Your task to perform on an android device: Search for duracell triple a on newegg, select the first entry, and add it to the cart. Image 0: 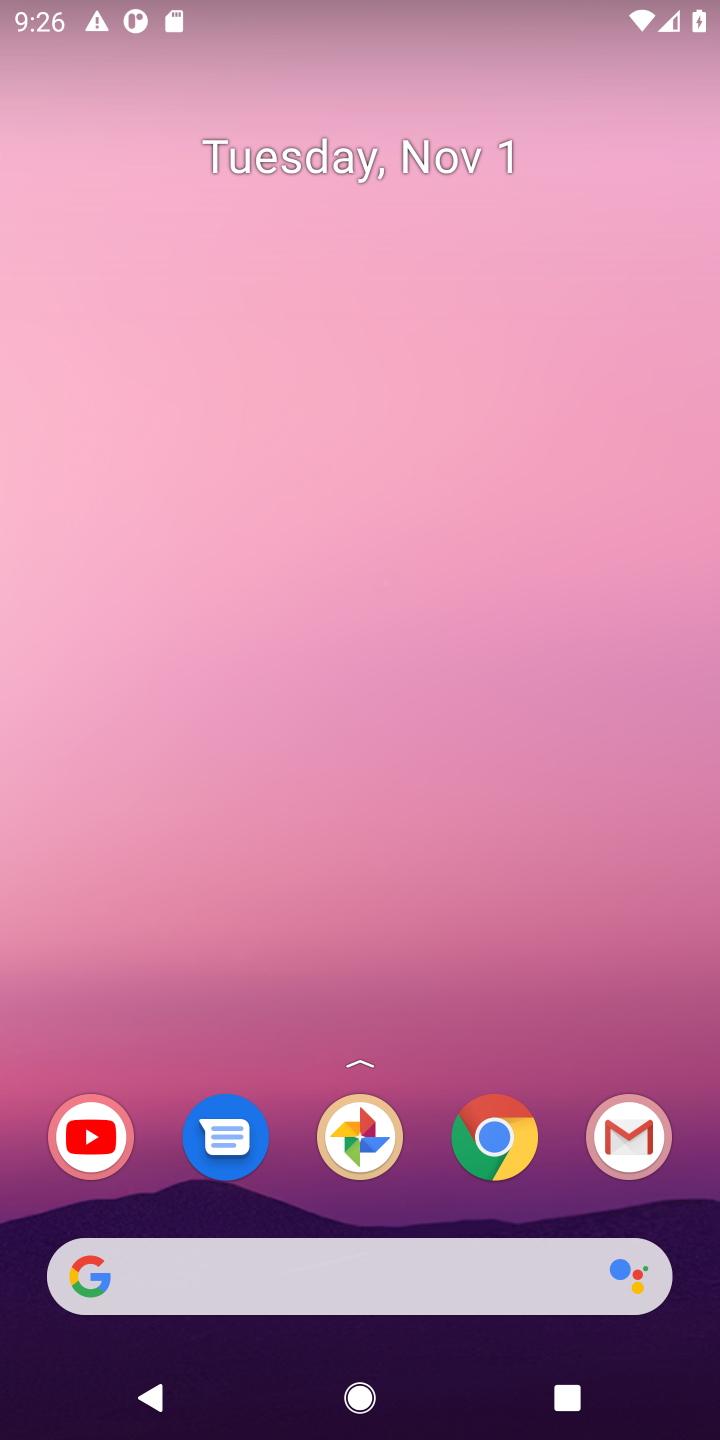
Step 0: click (354, 1289)
Your task to perform on an android device: Search for duracell triple a on newegg, select the first entry, and add it to the cart. Image 1: 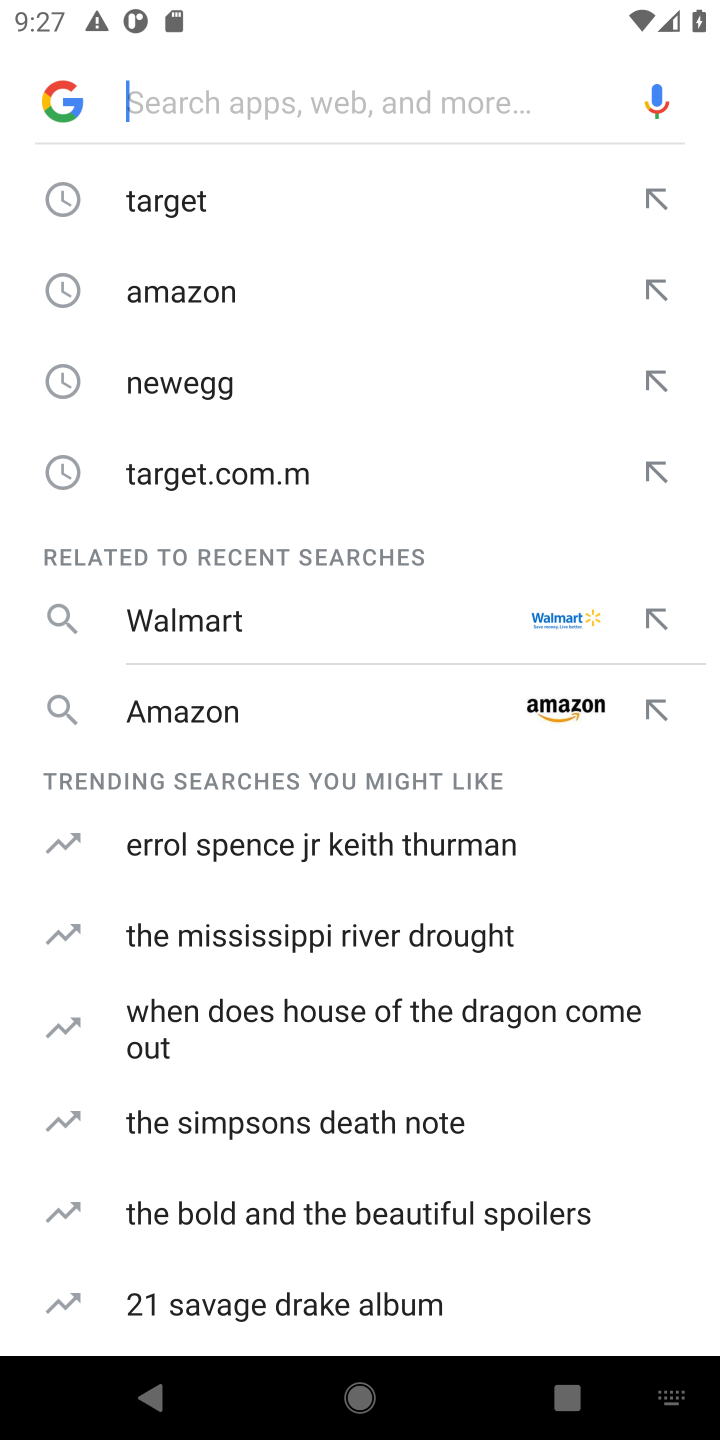
Step 1: type "newegg"
Your task to perform on an android device: Search for duracell triple a on newegg, select the first entry, and add it to the cart. Image 2: 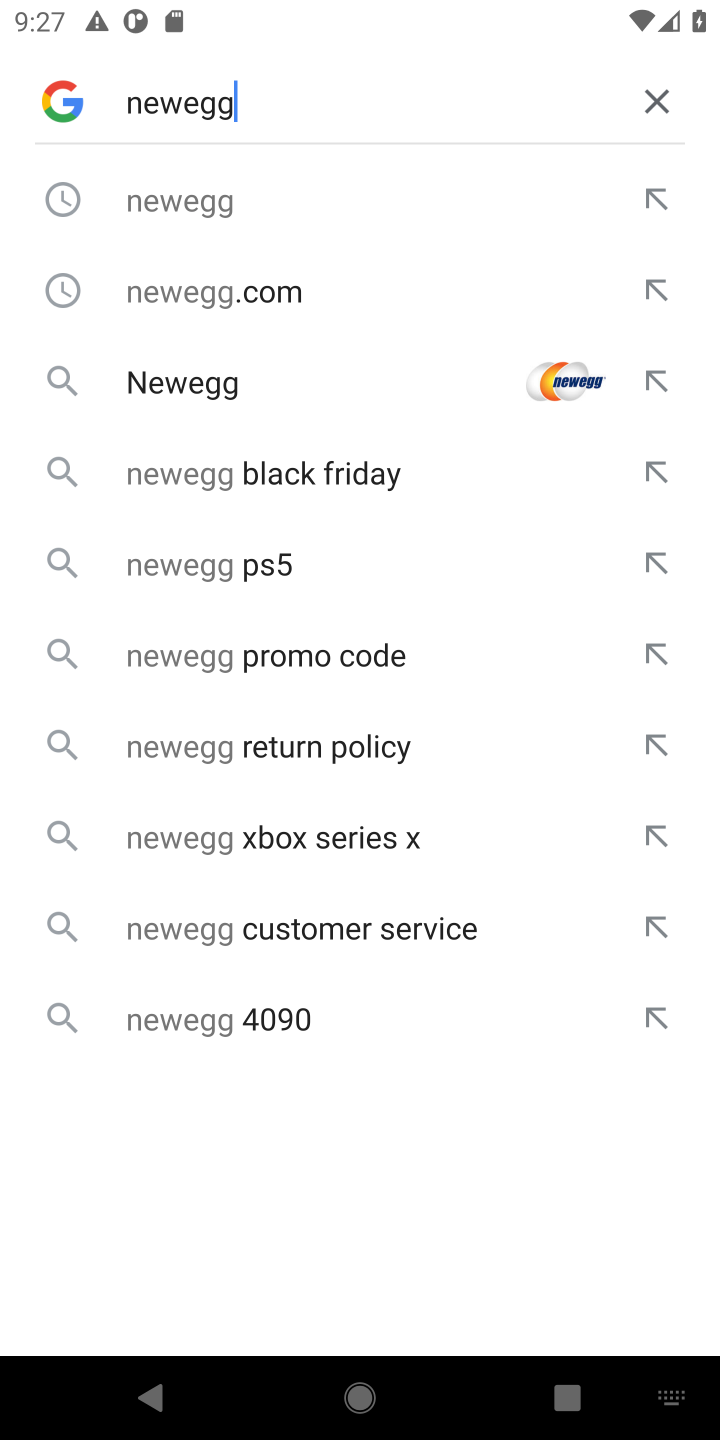
Step 2: click (320, 405)
Your task to perform on an android device: Search for duracell triple a on newegg, select the first entry, and add it to the cart. Image 3: 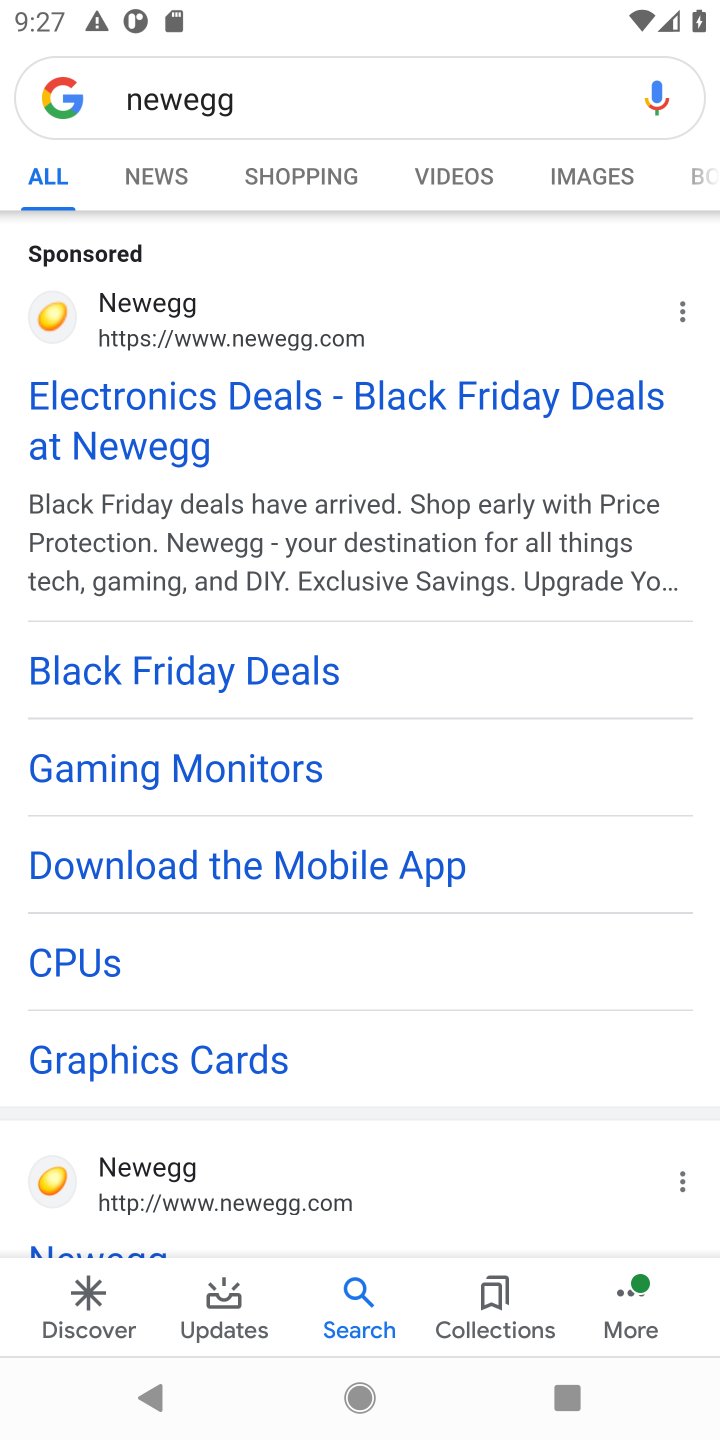
Step 3: click (146, 292)
Your task to perform on an android device: Search for duracell triple a on newegg, select the first entry, and add it to the cart. Image 4: 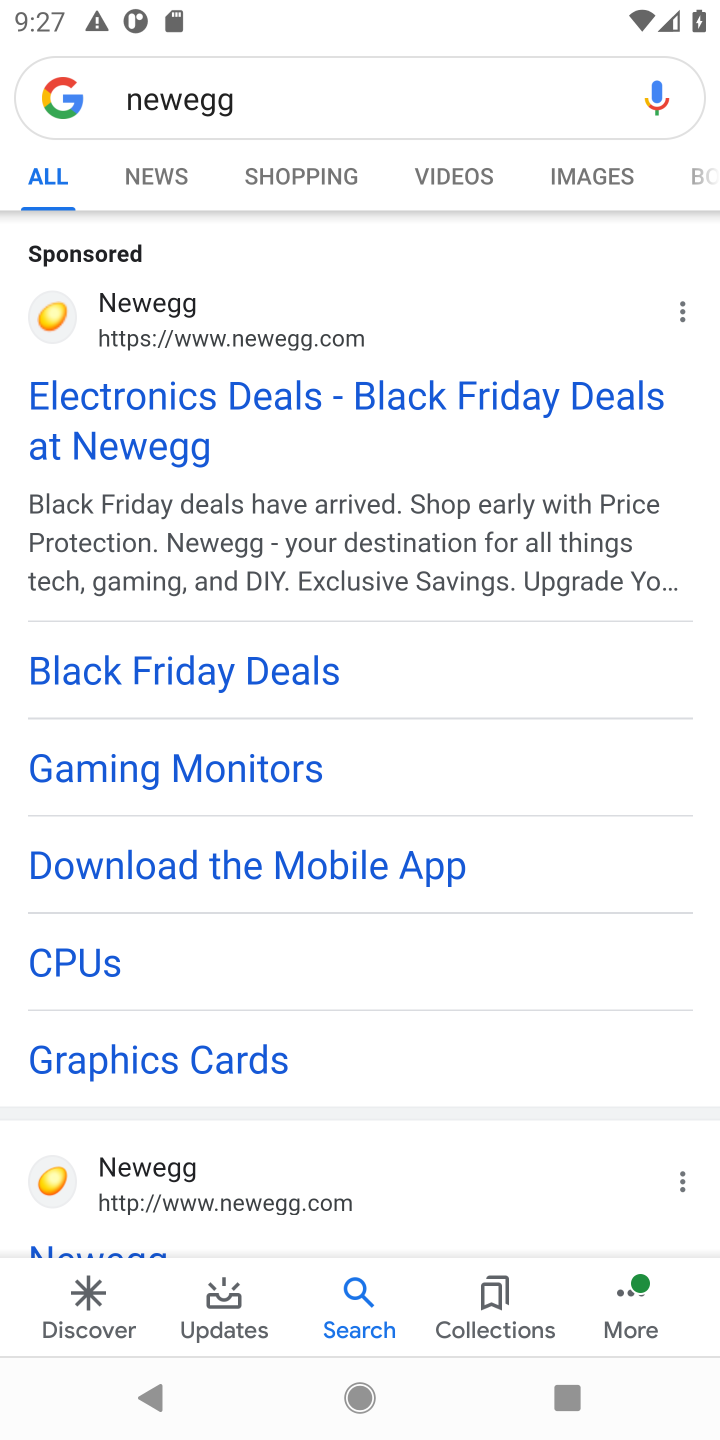
Step 4: click (169, 333)
Your task to perform on an android device: Search for duracell triple a on newegg, select the first entry, and add it to the cart. Image 5: 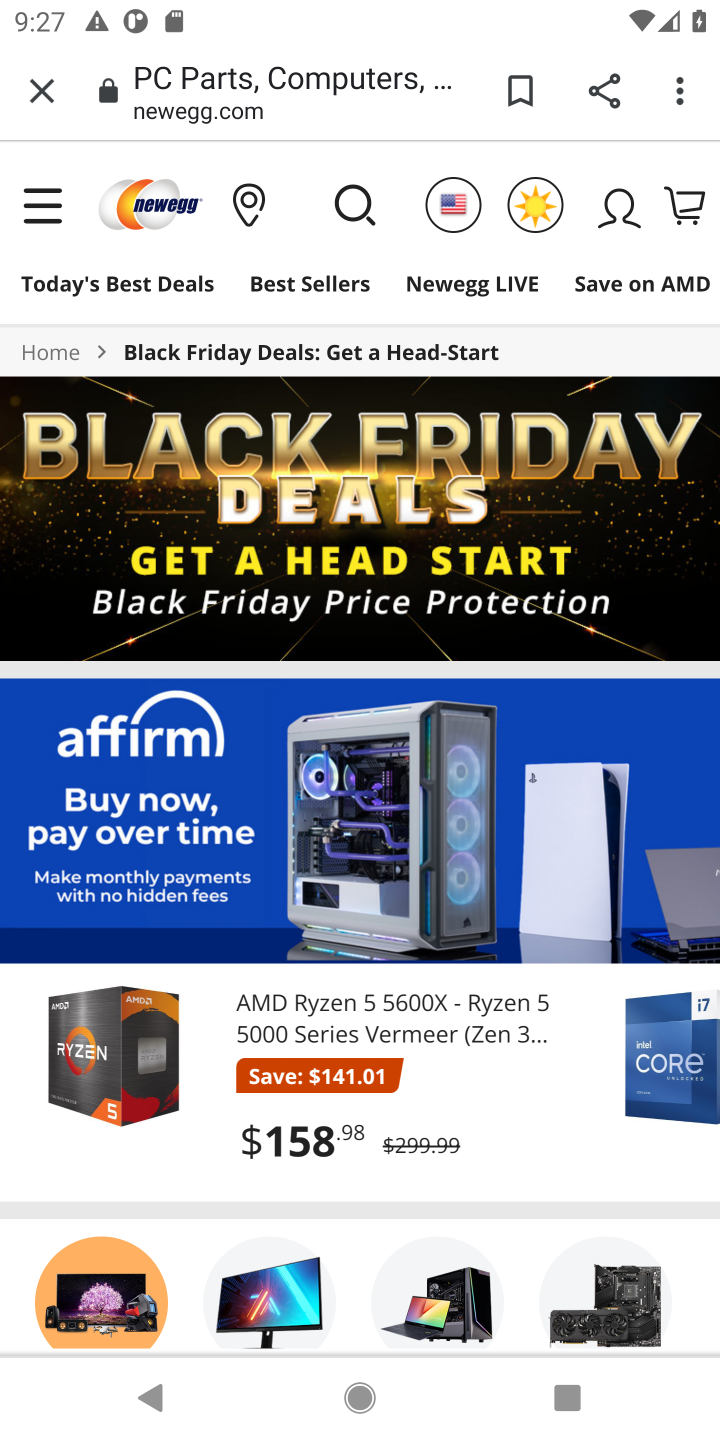
Step 5: click (453, 202)
Your task to perform on an android device: Search for duracell triple a on newegg, select the first entry, and add it to the cart. Image 6: 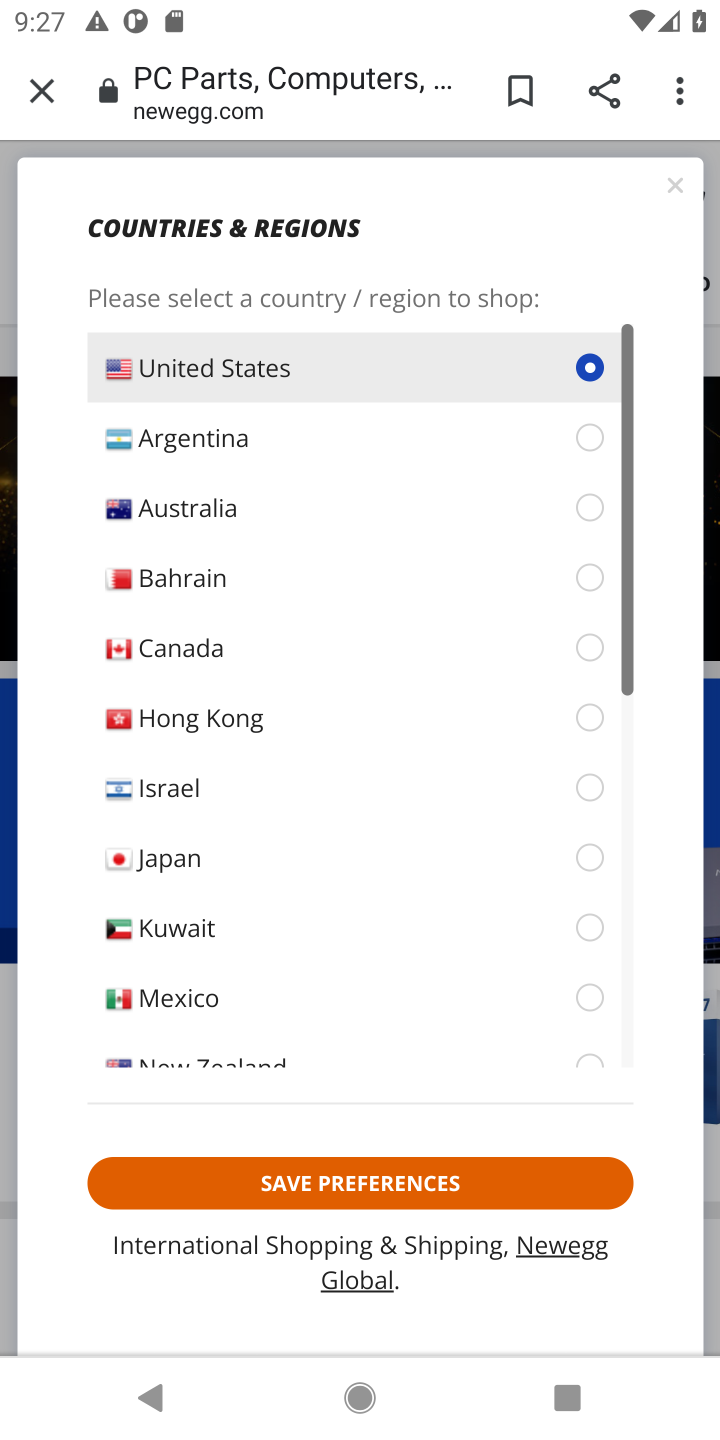
Step 6: click (344, 1172)
Your task to perform on an android device: Search for duracell triple a on newegg, select the first entry, and add it to the cart. Image 7: 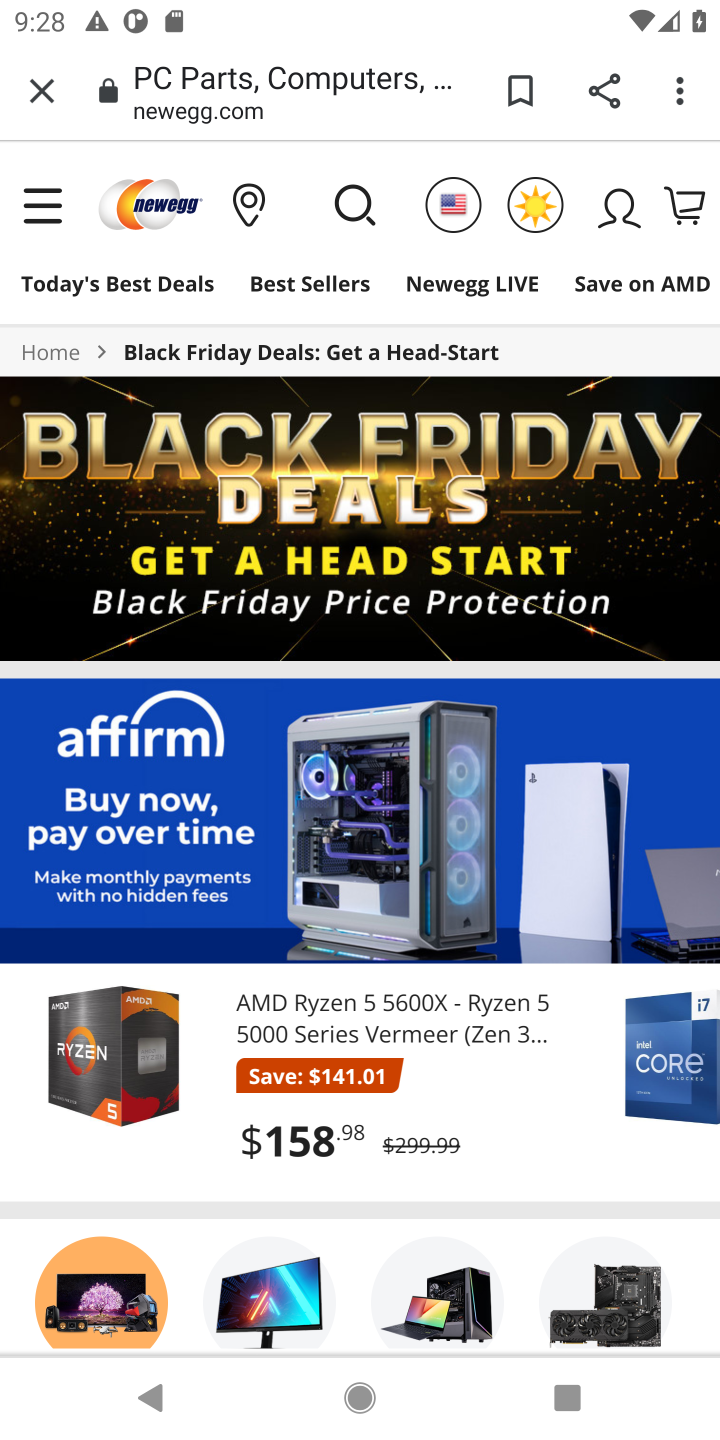
Step 7: click (356, 203)
Your task to perform on an android device: Search for duracell triple a on newegg, select the first entry, and add it to the cart. Image 8: 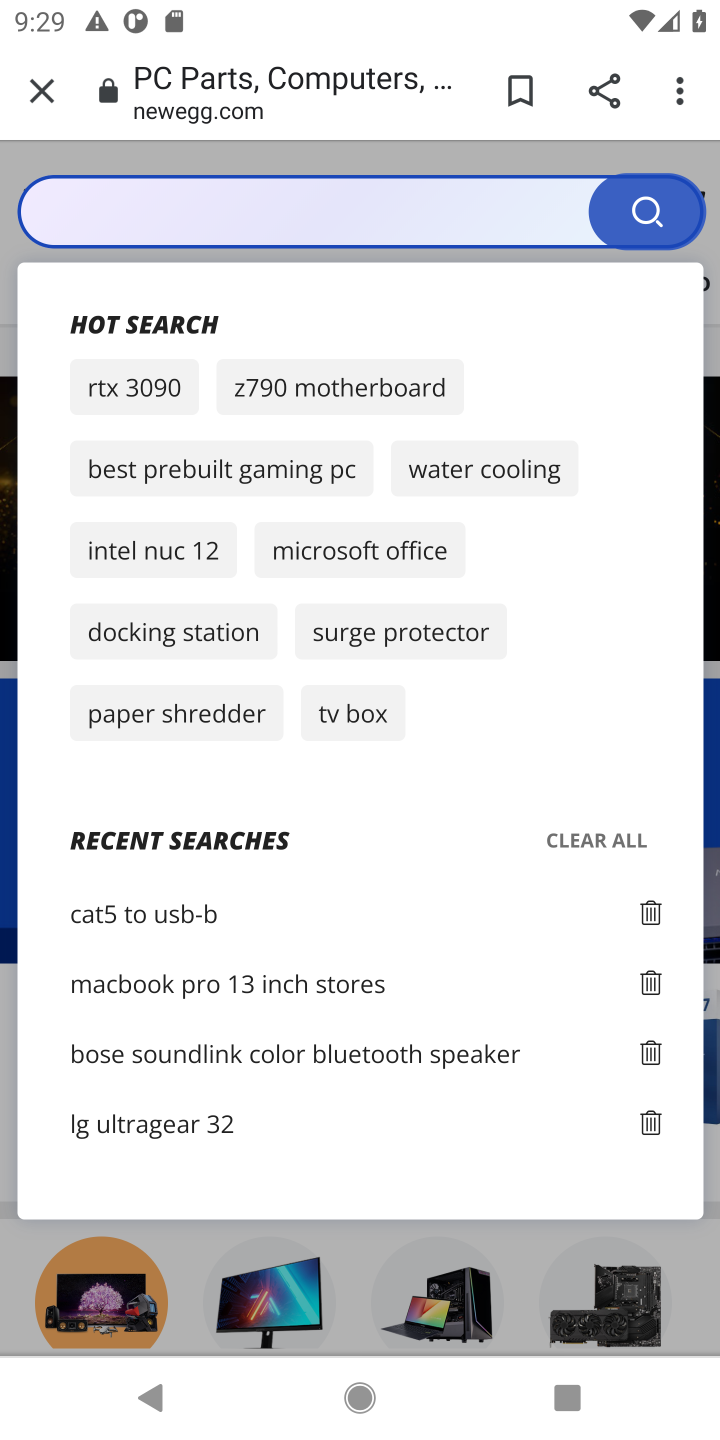
Step 8: click (193, 221)
Your task to perform on an android device: Search for duracell triple a on newegg, select the first entry, and add it to the cart. Image 9: 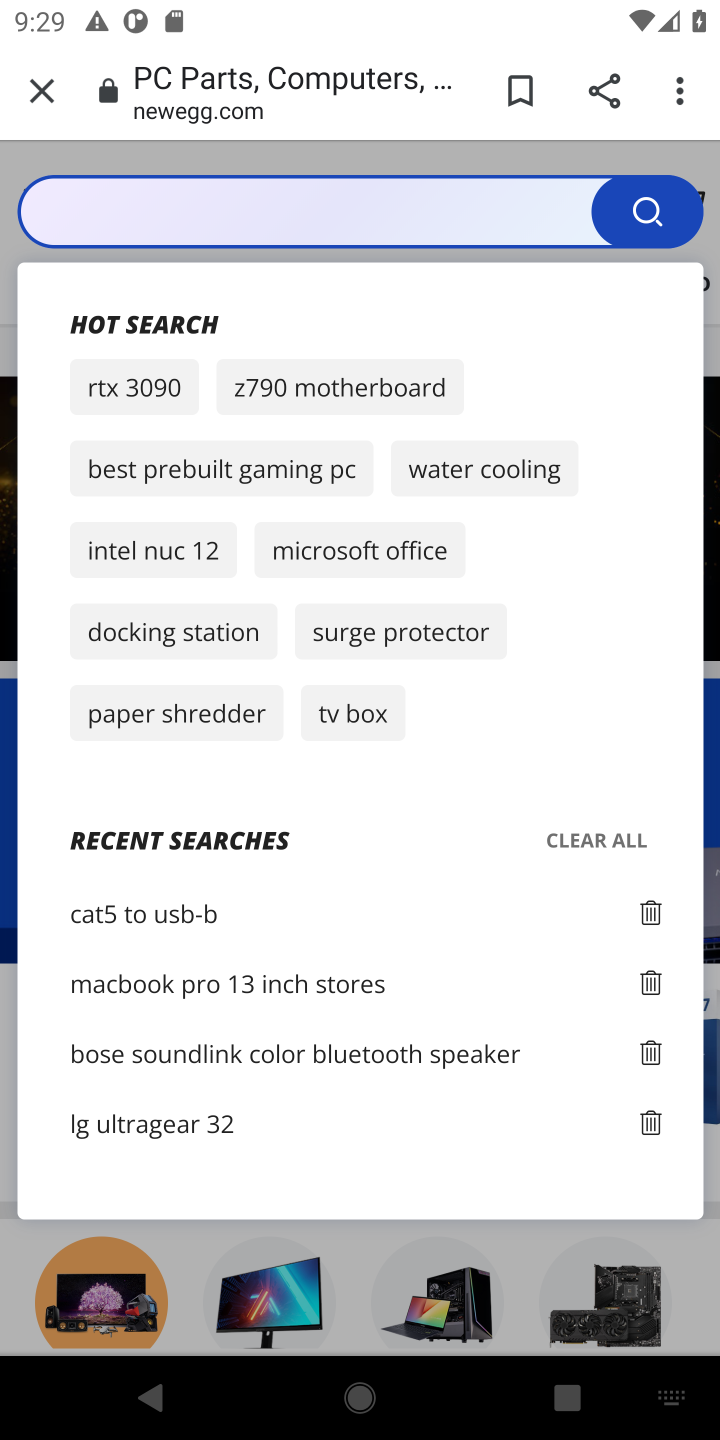
Step 9: type "duracell triple a"
Your task to perform on an android device: Search for duracell triple a on newegg, select the first entry, and add it to the cart. Image 10: 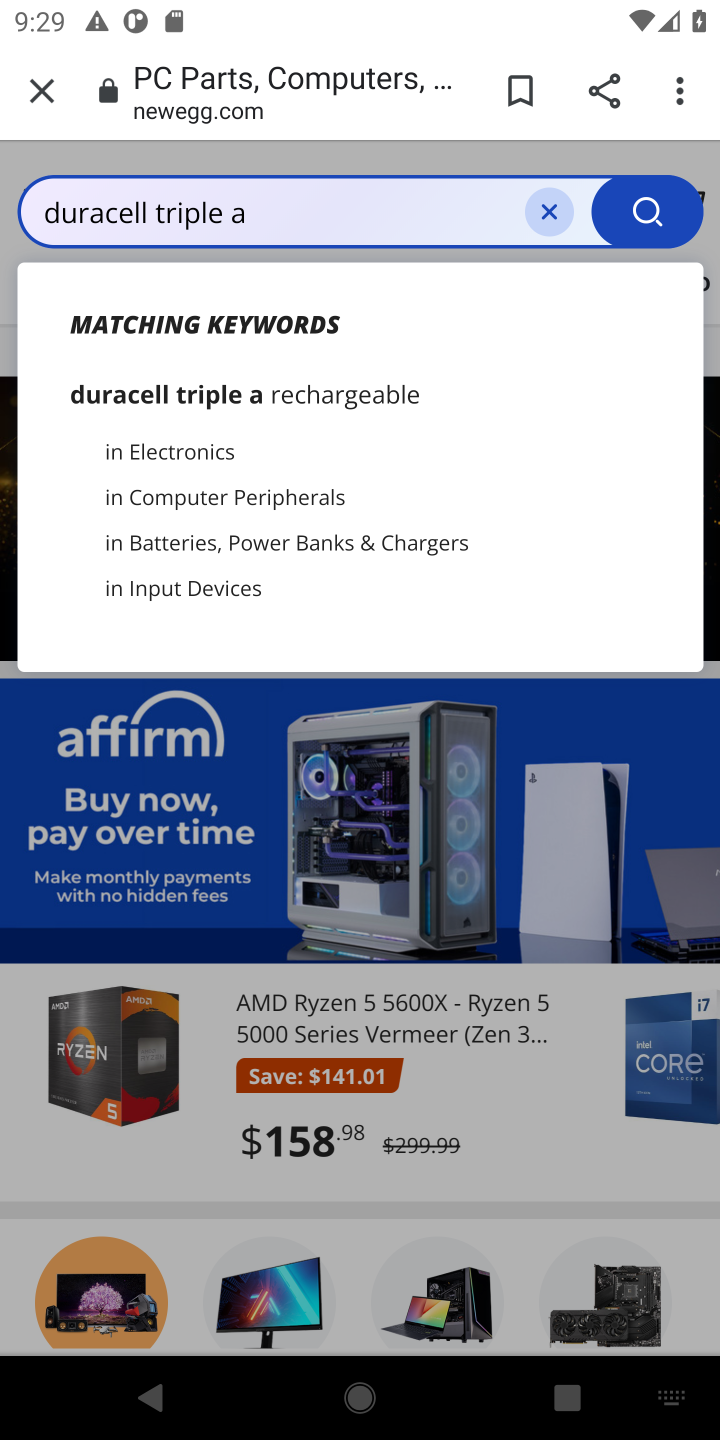
Step 10: click (208, 462)
Your task to perform on an android device: Search for duracell triple a on newegg, select the first entry, and add it to the cart. Image 11: 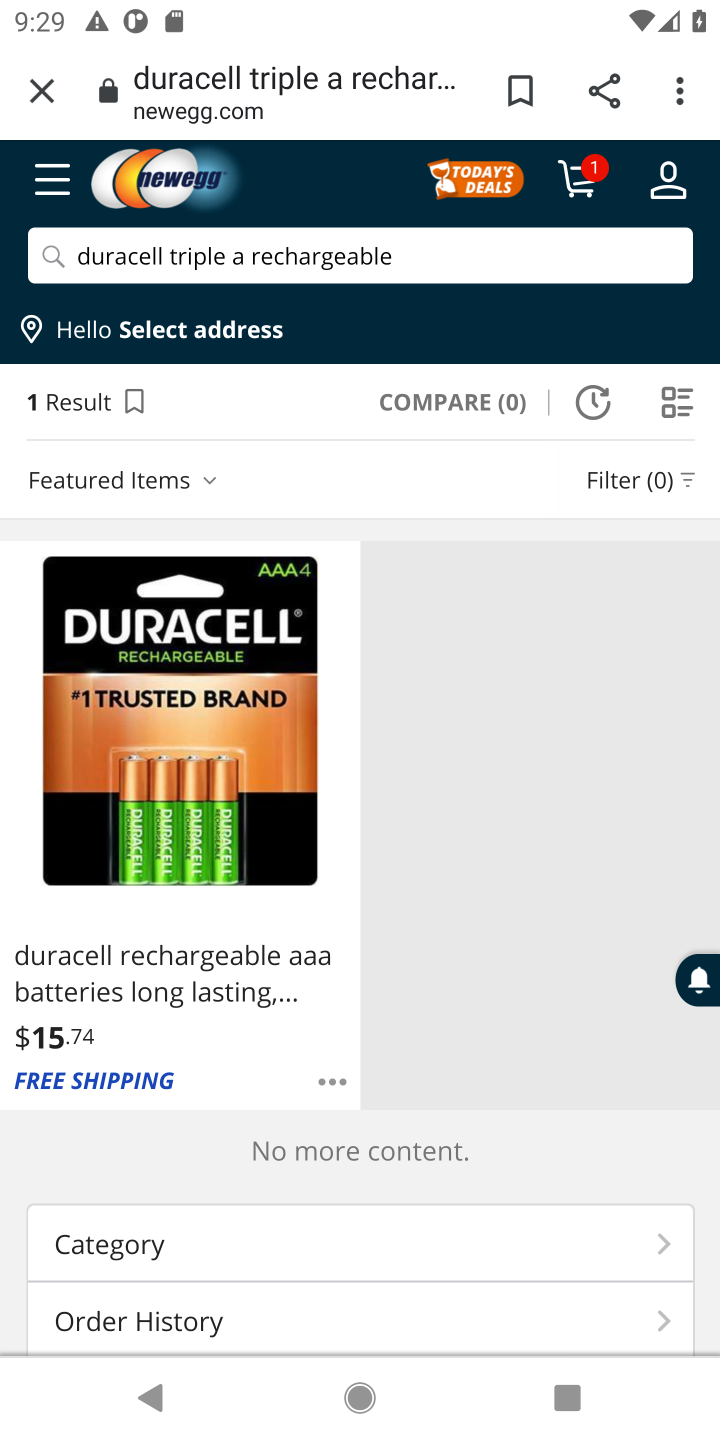
Step 11: click (159, 922)
Your task to perform on an android device: Search for duracell triple a on newegg, select the first entry, and add it to the cart. Image 12: 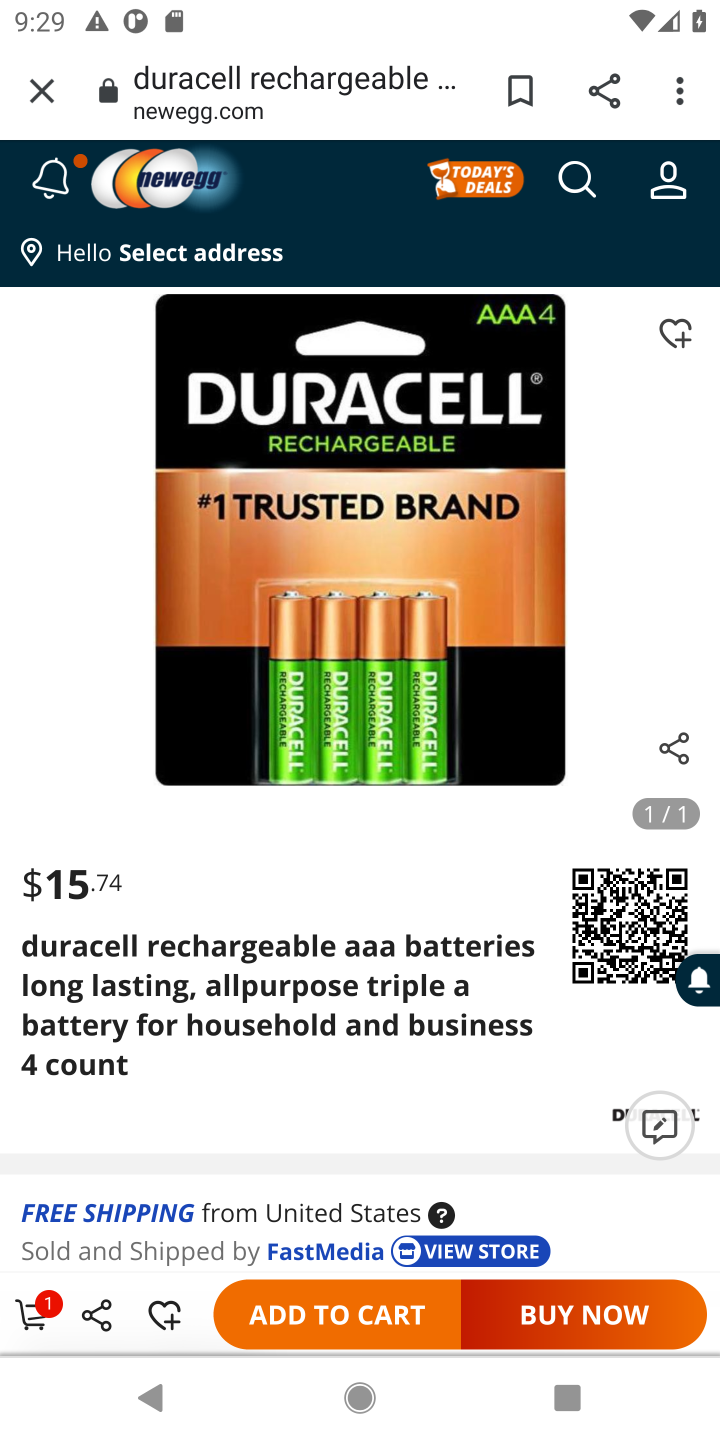
Step 12: click (346, 1313)
Your task to perform on an android device: Search for duracell triple a on newegg, select the first entry, and add it to the cart. Image 13: 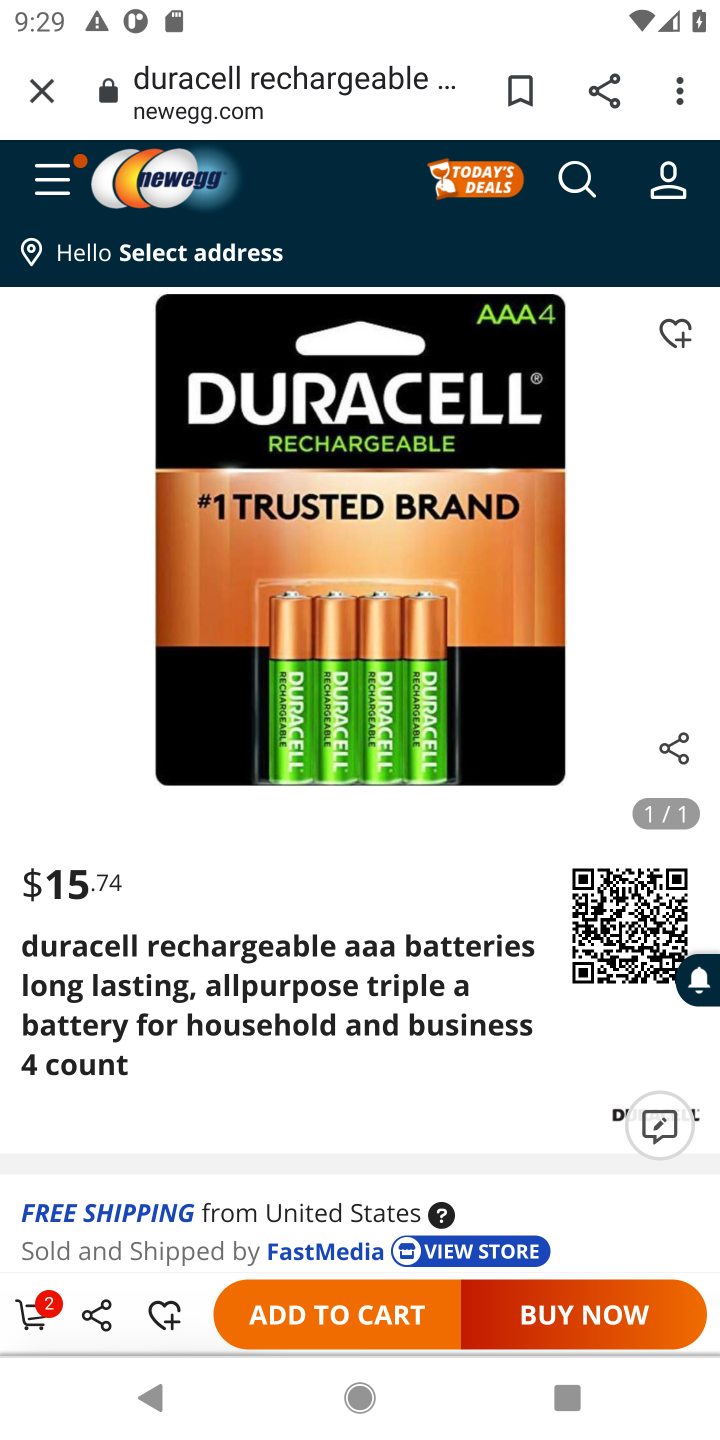
Step 13: task complete